Your task to perform on an android device: Open notification settings Image 0: 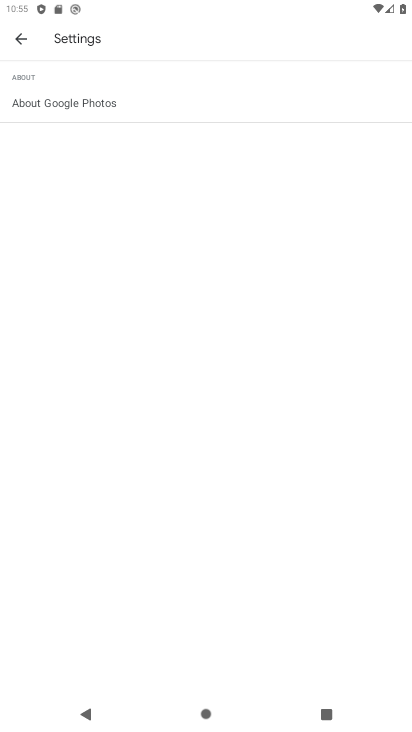
Step 0: press home button
Your task to perform on an android device: Open notification settings Image 1: 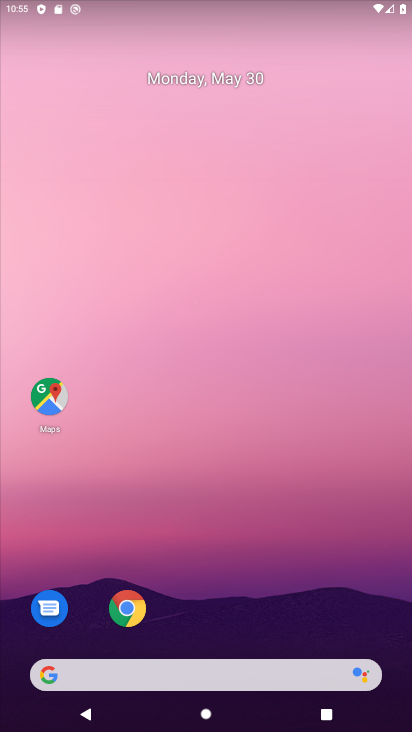
Step 1: drag from (283, 648) to (338, 0)
Your task to perform on an android device: Open notification settings Image 2: 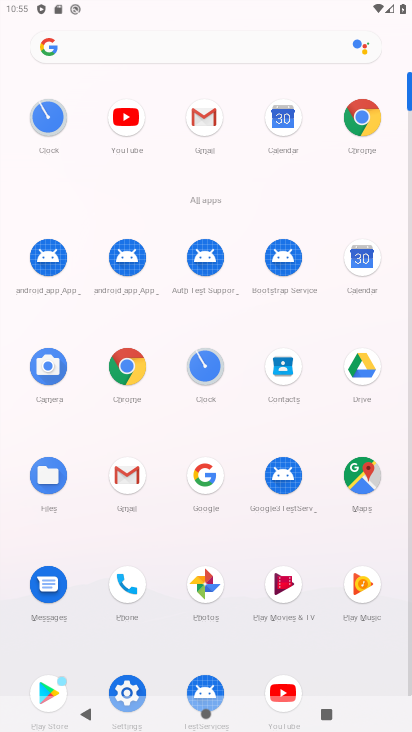
Step 2: click (408, 424)
Your task to perform on an android device: Open notification settings Image 3: 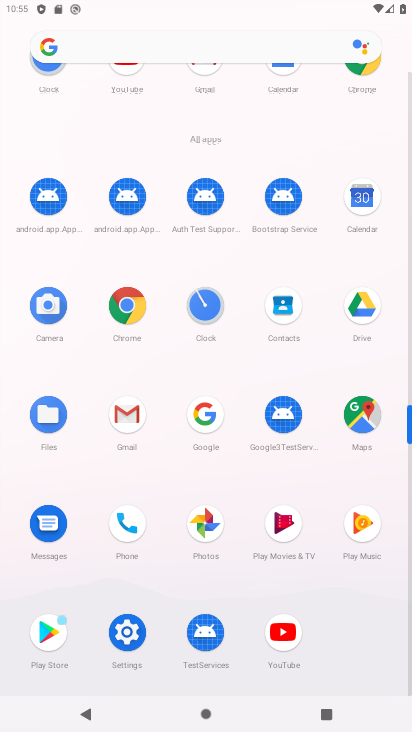
Step 3: click (131, 640)
Your task to perform on an android device: Open notification settings Image 4: 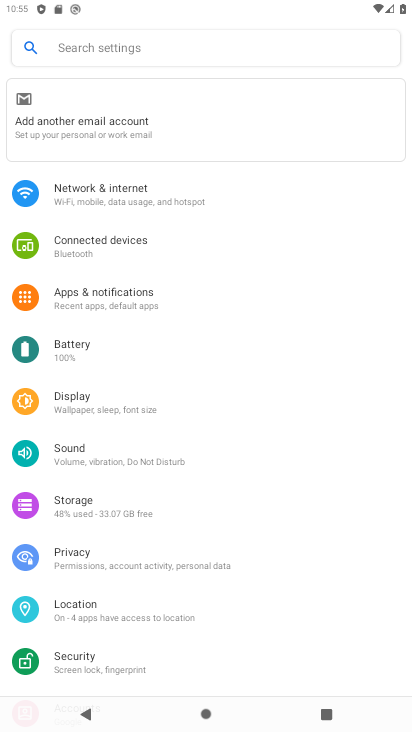
Step 4: click (102, 297)
Your task to perform on an android device: Open notification settings Image 5: 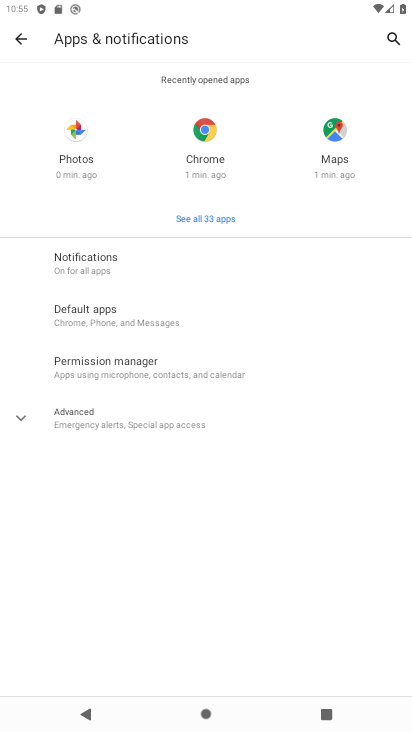
Step 5: click (76, 271)
Your task to perform on an android device: Open notification settings Image 6: 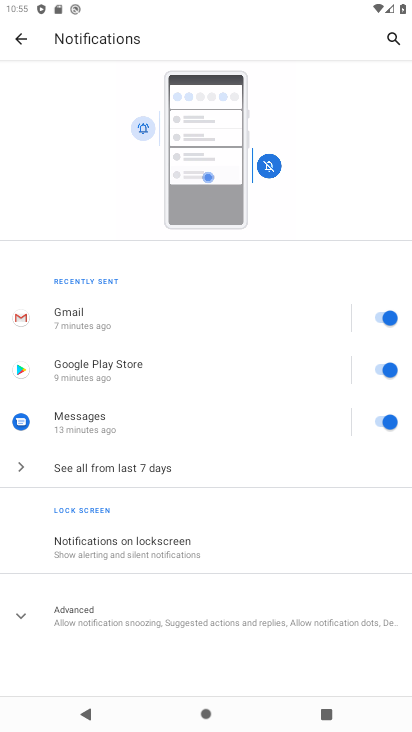
Step 6: drag from (177, 530) to (198, 285)
Your task to perform on an android device: Open notification settings Image 7: 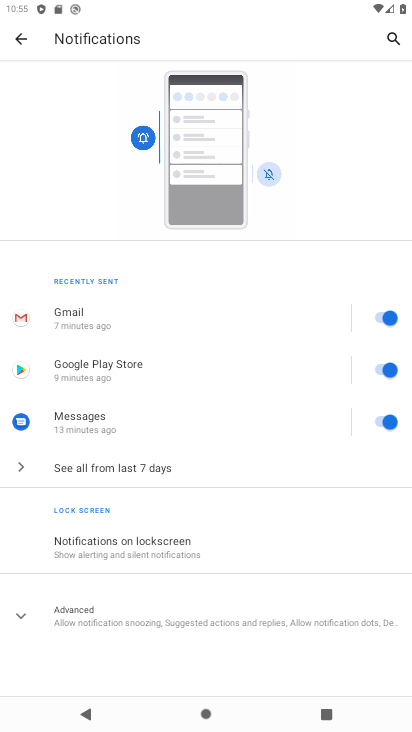
Step 7: click (20, 621)
Your task to perform on an android device: Open notification settings Image 8: 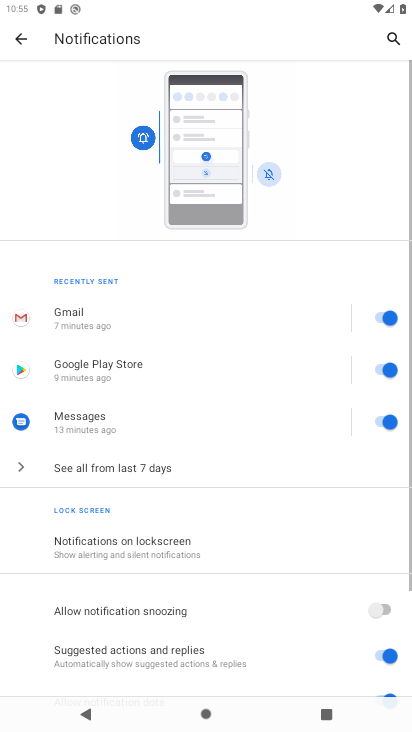
Step 8: task complete